Your task to perform on an android device: toggle airplane mode Image 0: 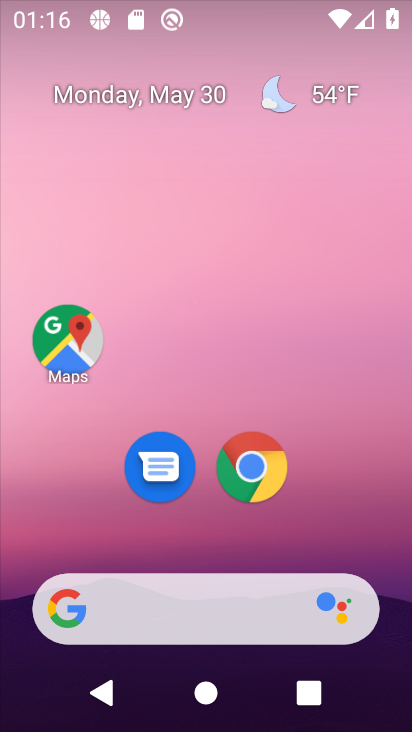
Step 0: drag from (215, 559) to (250, 4)
Your task to perform on an android device: toggle airplane mode Image 1: 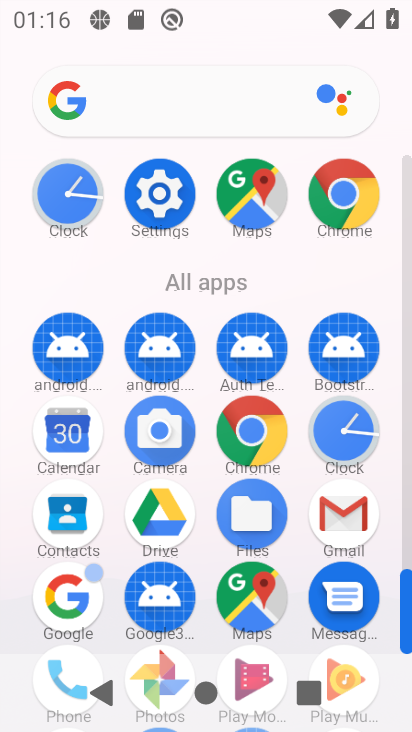
Step 1: click (176, 174)
Your task to perform on an android device: toggle airplane mode Image 2: 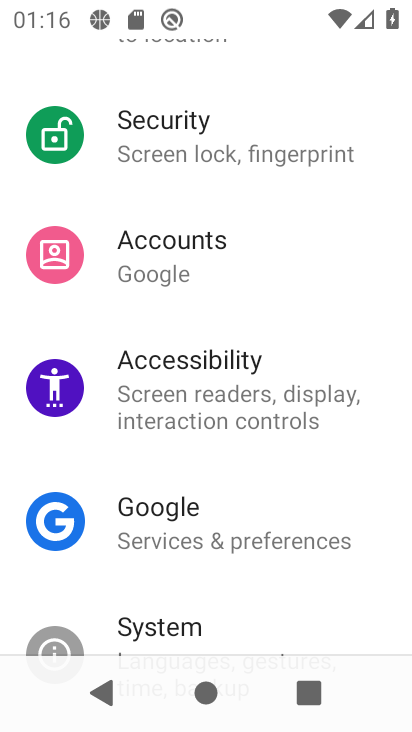
Step 2: drag from (188, 182) to (152, 674)
Your task to perform on an android device: toggle airplane mode Image 3: 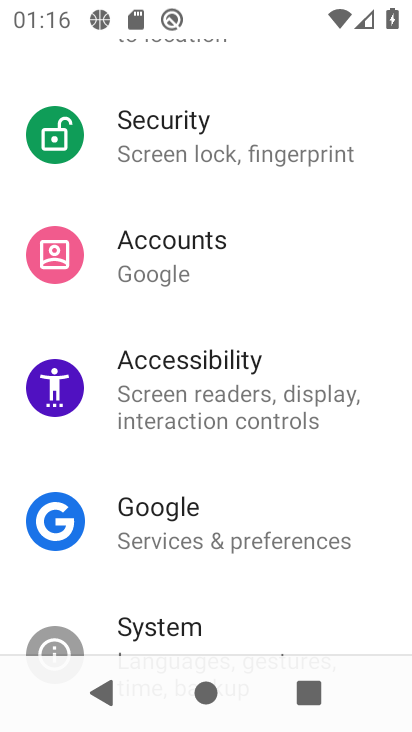
Step 3: drag from (217, 159) to (203, 593)
Your task to perform on an android device: toggle airplane mode Image 4: 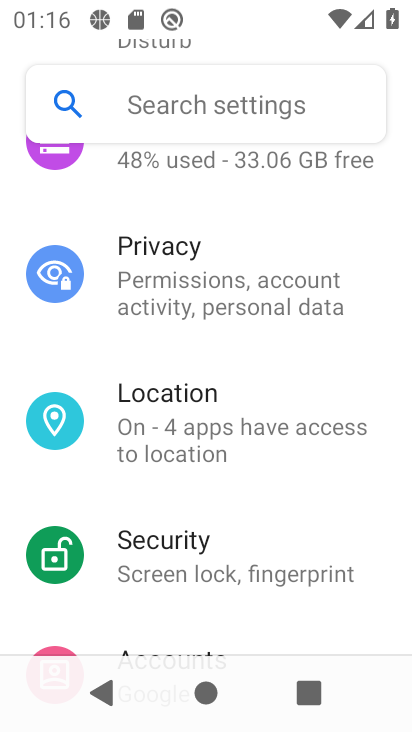
Step 4: drag from (232, 200) to (193, 619)
Your task to perform on an android device: toggle airplane mode Image 5: 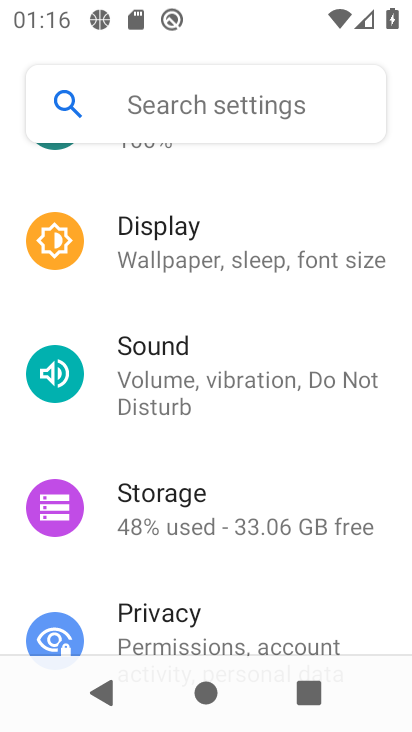
Step 5: drag from (245, 211) to (246, 664)
Your task to perform on an android device: toggle airplane mode Image 6: 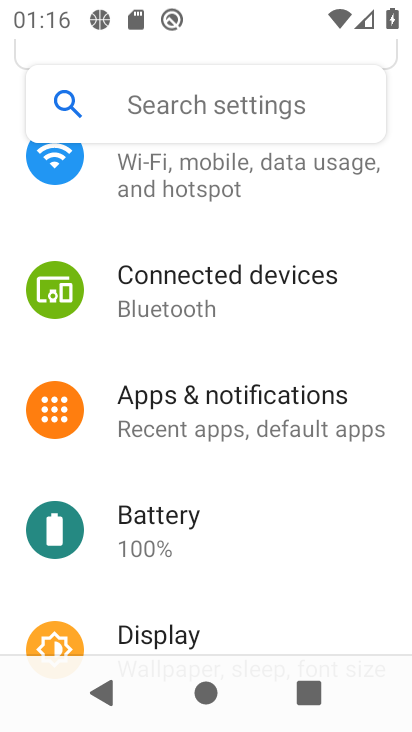
Step 6: click (229, 203)
Your task to perform on an android device: toggle airplane mode Image 7: 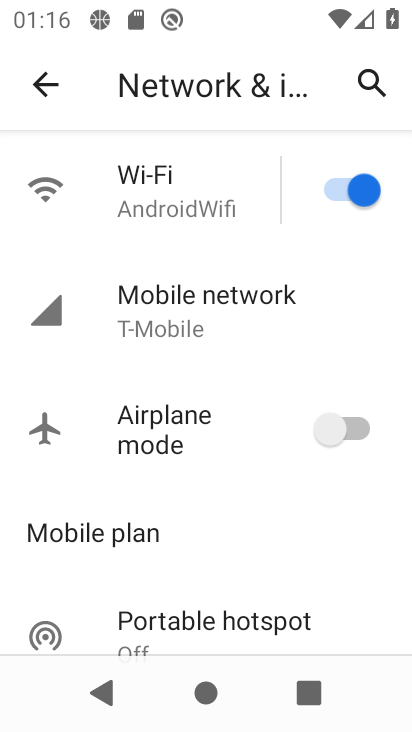
Step 7: click (326, 441)
Your task to perform on an android device: toggle airplane mode Image 8: 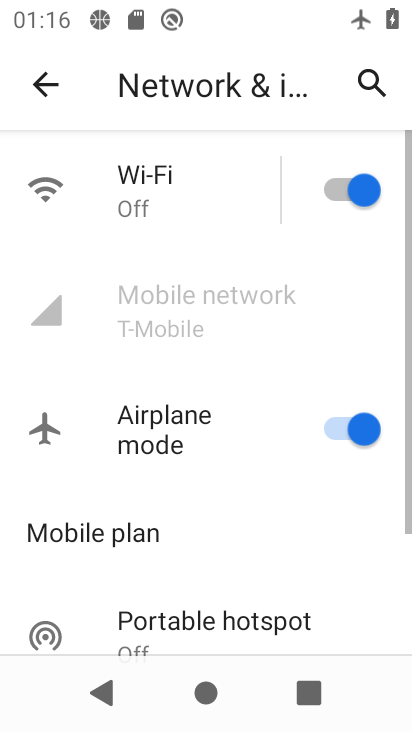
Step 8: task complete